Your task to perform on an android device: When is my next appointment? Image 0: 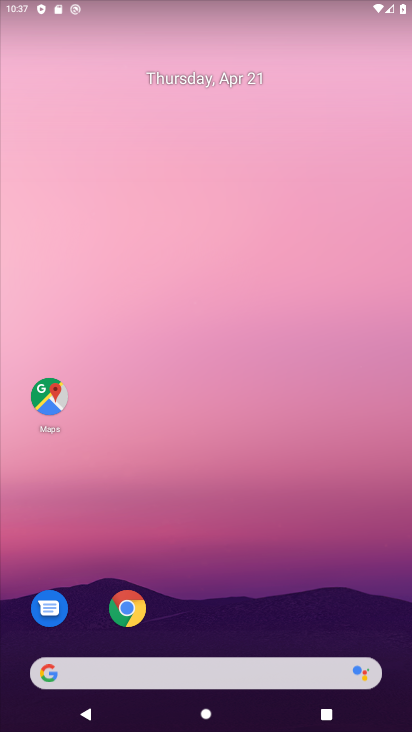
Step 0: drag from (178, 457) to (238, 170)
Your task to perform on an android device: When is my next appointment? Image 1: 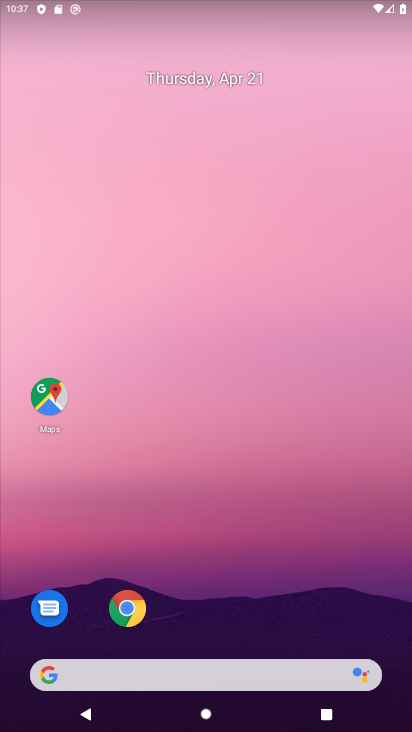
Step 1: drag from (194, 628) to (274, 151)
Your task to perform on an android device: When is my next appointment? Image 2: 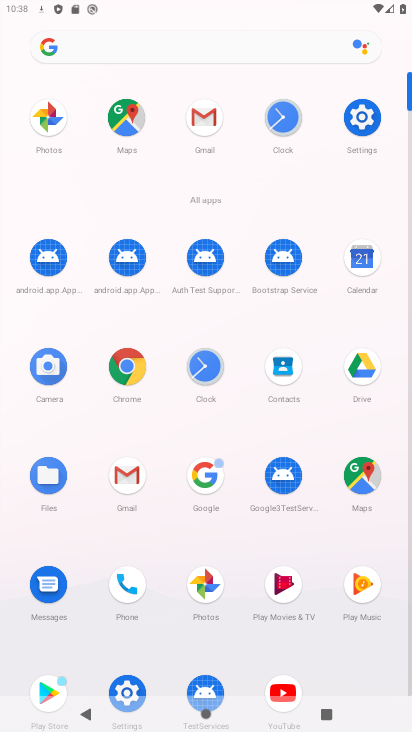
Step 2: click (357, 265)
Your task to perform on an android device: When is my next appointment? Image 3: 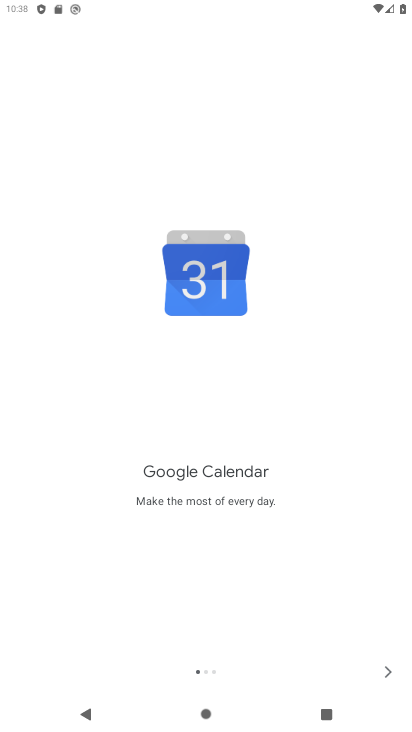
Step 3: click (393, 671)
Your task to perform on an android device: When is my next appointment? Image 4: 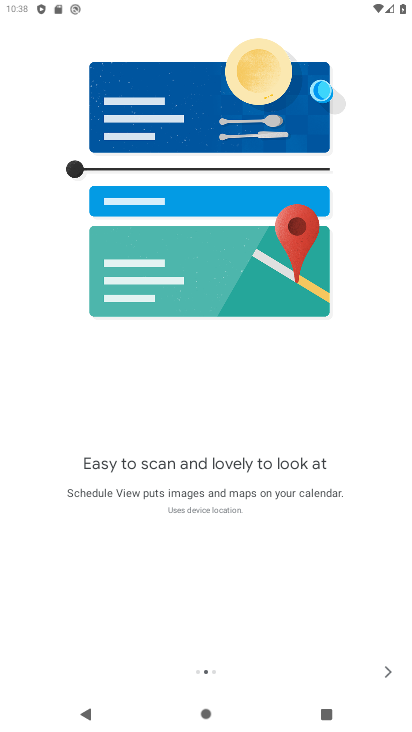
Step 4: click (389, 668)
Your task to perform on an android device: When is my next appointment? Image 5: 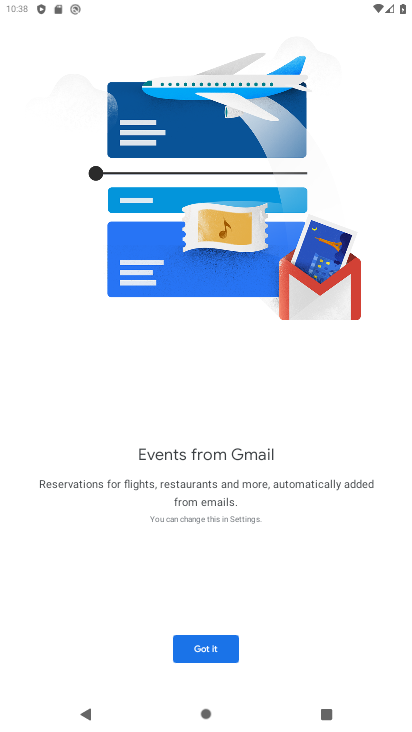
Step 5: click (224, 655)
Your task to perform on an android device: When is my next appointment? Image 6: 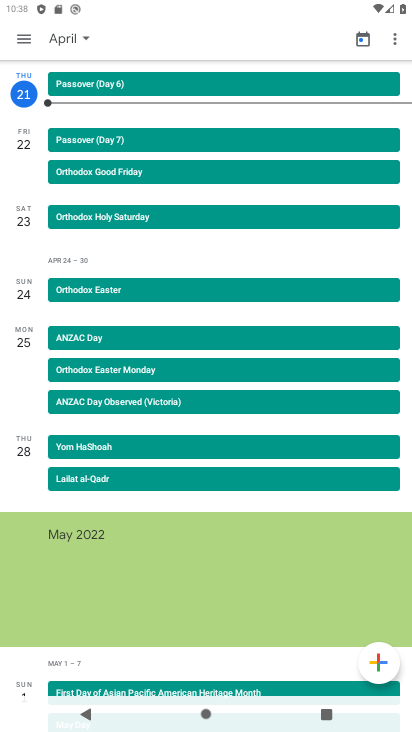
Step 6: click (68, 38)
Your task to perform on an android device: When is my next appointment? Image 7: 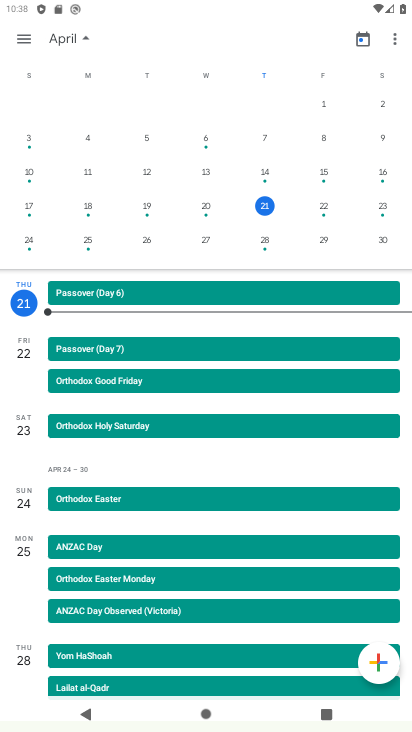
Step 7: click (28, 40)
Your task to perform on an android device: When is my next appointment? Image 8: 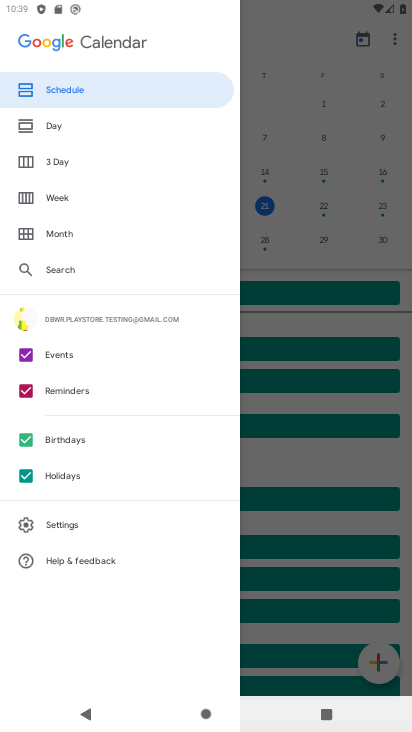
Step 8: click (27, 386)
Your task to perform on an android device: When is my next appointment? Image 9: 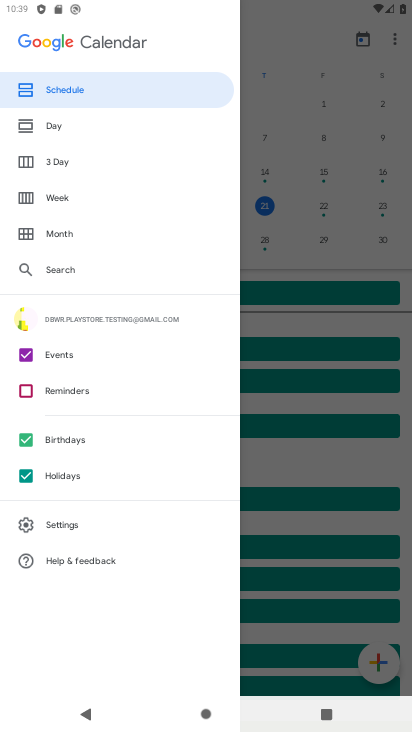
Step 9: click (31, 438)
Your task to perform on an android device: When is my next appointment? Image 10: 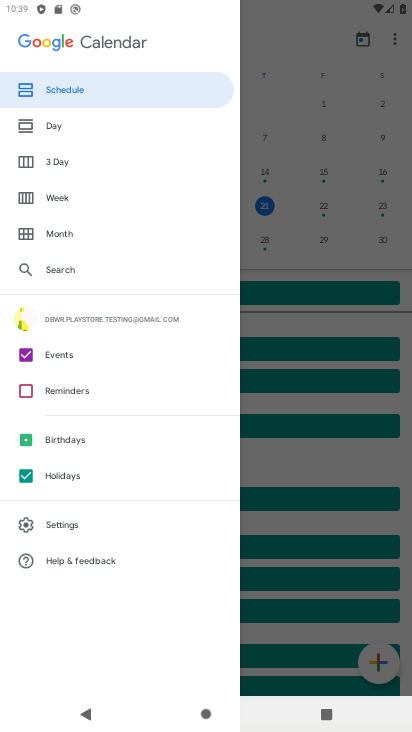
Step 10: click (27, 479)
Your task to perform on an android device: When is my next appointment? Image 11: 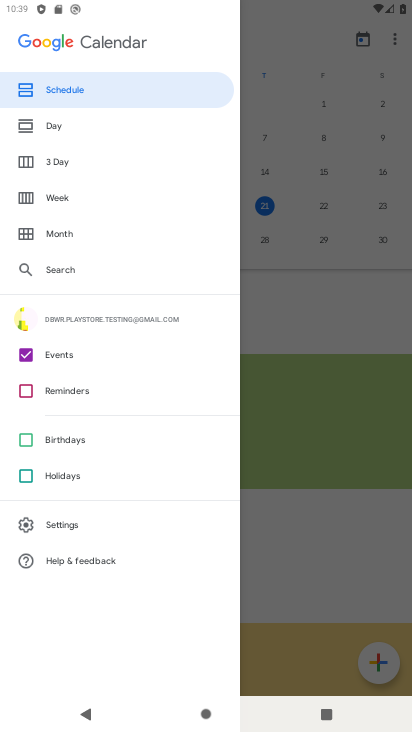
Step 11: click (153, 80)
Your task to perform on an android device: When is my next appointment? Image 12: 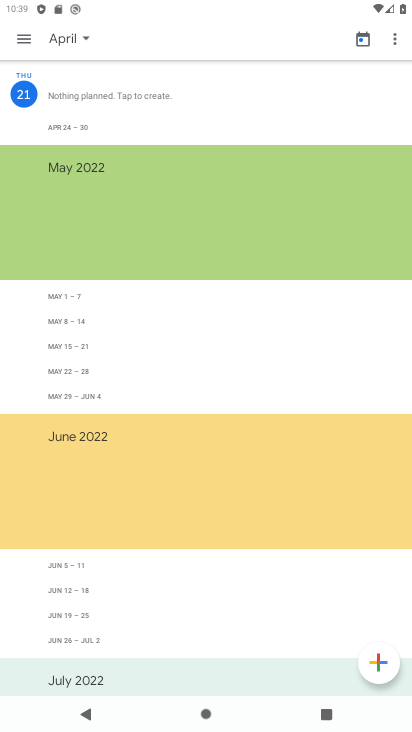
Step 12: click (82, 46)
Your task to perform on an android device: When is my next appointment? Image 13: 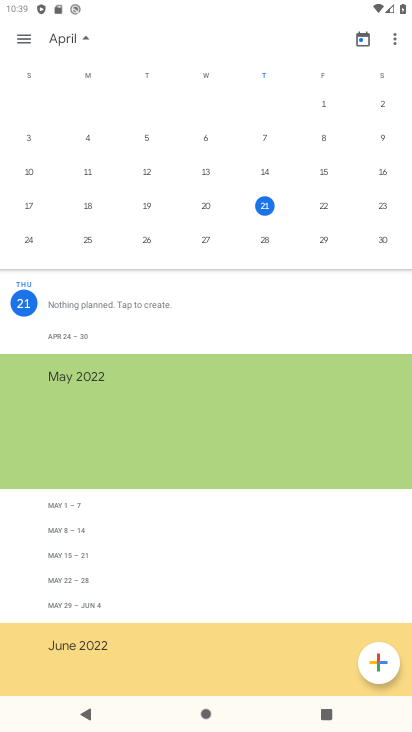
Step 13: task complete